Your task to perform on an android device: Clear the shopping cart on target. Search for macbook pro 13 inch on target, select the first entry, and add it to the cart. Image 0: 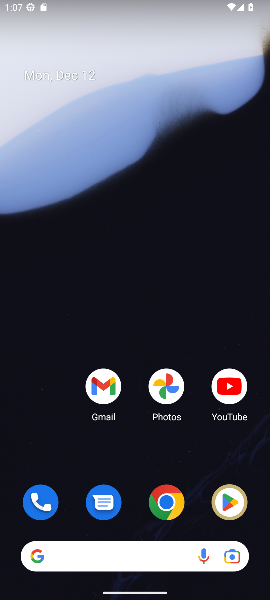
Step 0: click (173, 519)
Your task to perform on an android device: Clear the shopping cart on target. Search for macbook pro 13 inch on target, select the first entry, and add it to the cart. Image 1: 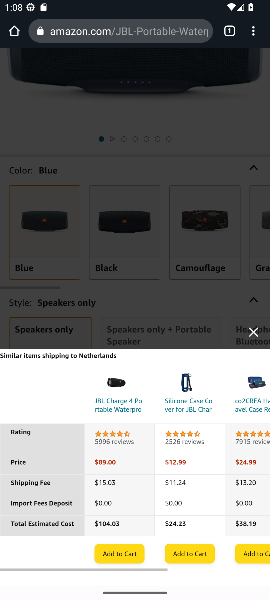
Step 1: press home button
Your task to perform on an android device: Clear the shopping cart on target. Search for macbook pro 13 inch on target, select the first entry, and add it to the cart. Image 2: 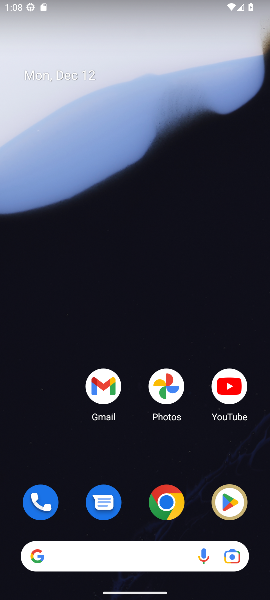
Step 2: click (167, 498)
Your task to perform on an android device: Clear the shopping cart on target. Search for macbook pro 13 inch on target, select the first entry, and add it to the cart. Image 3: 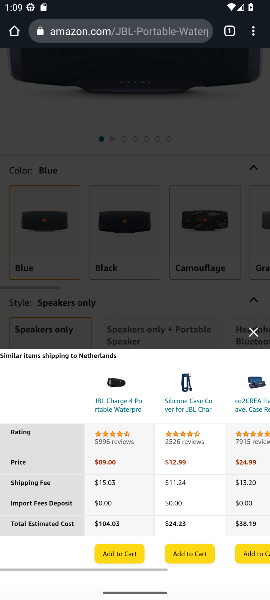
Step 3: click (89, 30)
Your task to perform on an android device: Clear the shopping cart on target. Search for macbook pro 13 inch on target, select the first entry, and add it to the cart. Image 4: 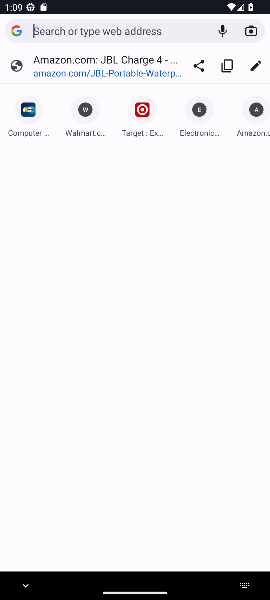
Step 4: click (151, 123)
Your task to perform on an android device: Clear the shopping cart on target. Search for macbook pro 13 inch on target, select the first entry, and add it to the cart. Image 5: 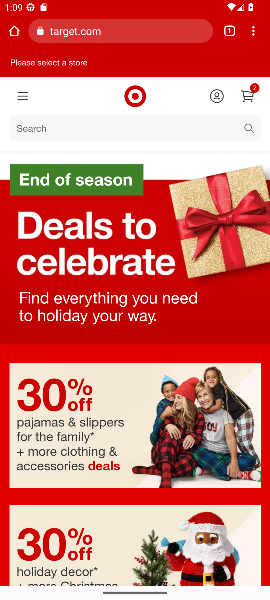
Step 5: click (80, 136)
Your task to perform on an android device: Clear the shopping cart on target. Search for macbook pro 13 inch on target, select the first entry, and add it to the cart. Image 6: 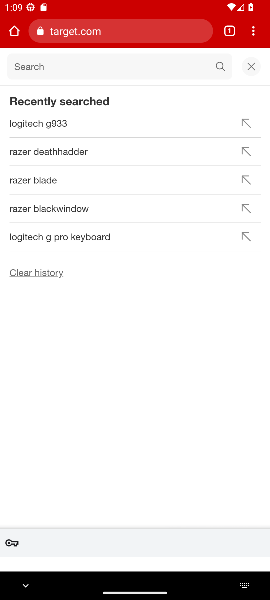
Step 6: type "macbook pro 13"
Your task to perform on an android device: Clear the shopping cart on target. Search for macbook pro 13 inch on target, select the first entry, and add it to the cart. Image 7: 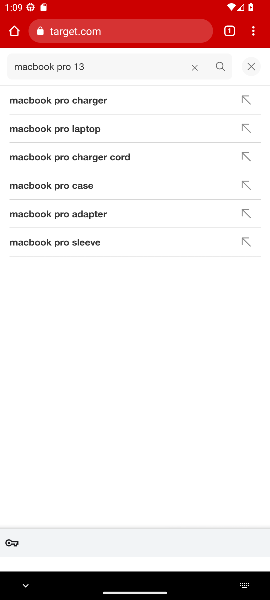
Step 7: click (228, 68)
Your task to perform on an android device: Clear the shopping cart on target. Search for macbook pro 13 inch on target, select the first entry, and add it to the cart. Image 8: 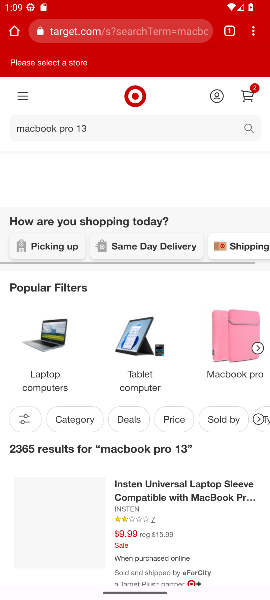
Step 8: click (61, 363)
Your task to perform on an android device: Clear the shopping cart on target. Search for macbook pro 13 inch on target, select the first entry, and add it to the cart. Image 9: 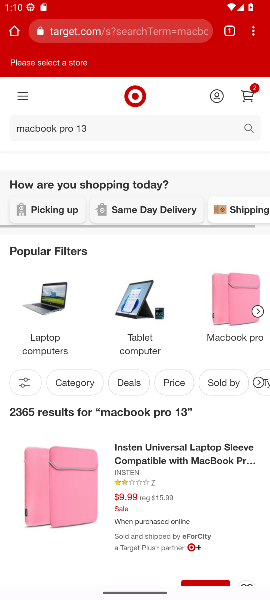
Step 9: task complete